Your task to perform on an android device: turn on translation in the chrome app Image 0: 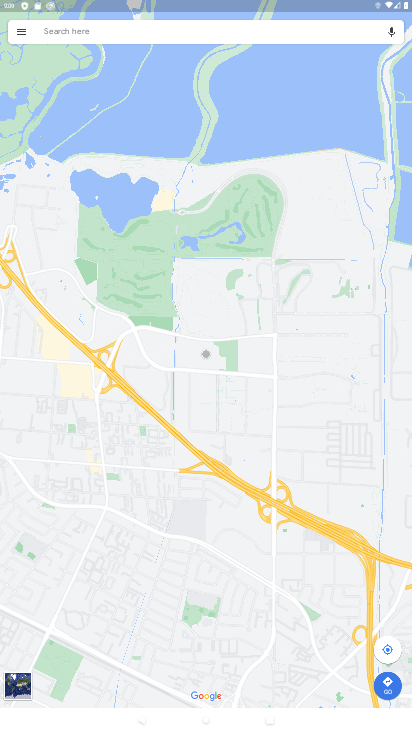
Step 0: press home button
Your task to perform on an android device: turn on translation in the chrome app Image 1: 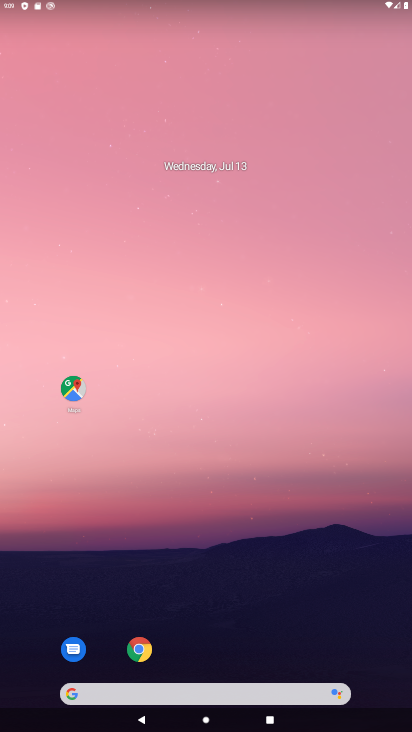
Step 1: drag from (194, 663) to (237, 56)
Your task to perform on an android device: turn on translation in the chrome app Image 2: 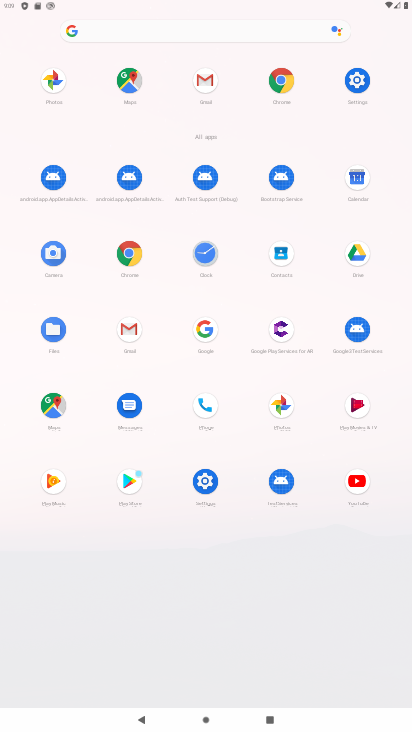
Step 2: click (128, 256)
Your task to perform on an android device: turn on translation in the chrome app Image 3: 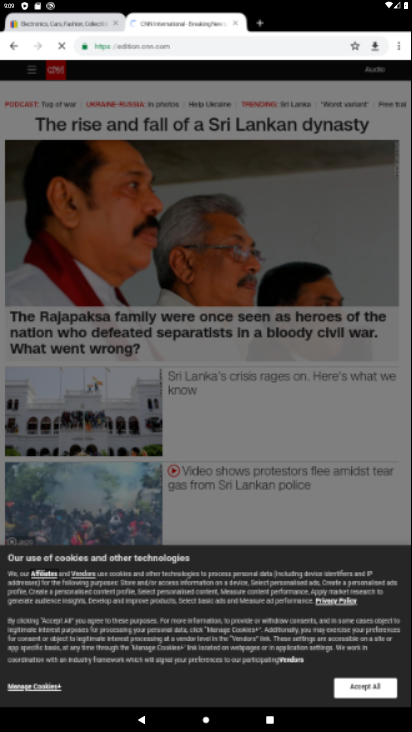
Step 3: drag from (397, 44) to (325, 278)
Your task to perform on an android device: turn on translation in the chrome app Image 4: 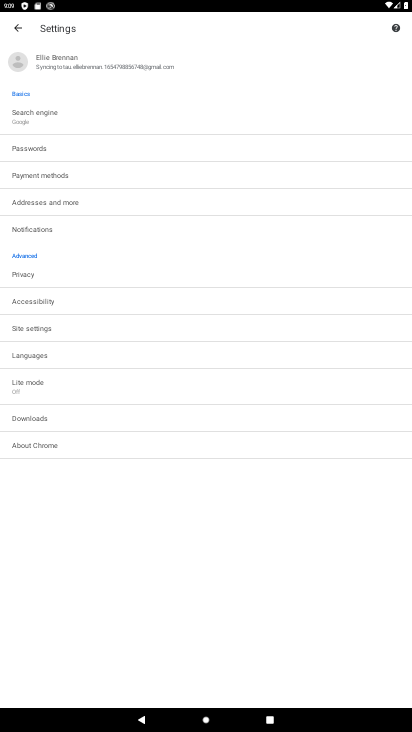
Step 4: click (57, 348)
Your task to perform on an android device: turn on translation in the chrome app Image 5: 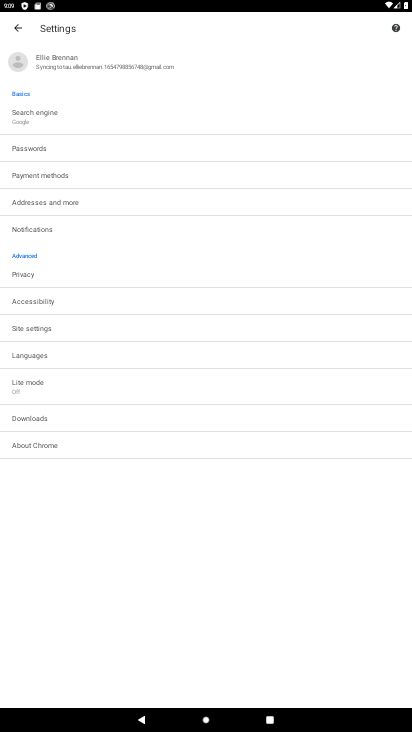
Step 5: click (106, 363)
Your task to perform on an android device: turn on translation in the chrome app Image 6: 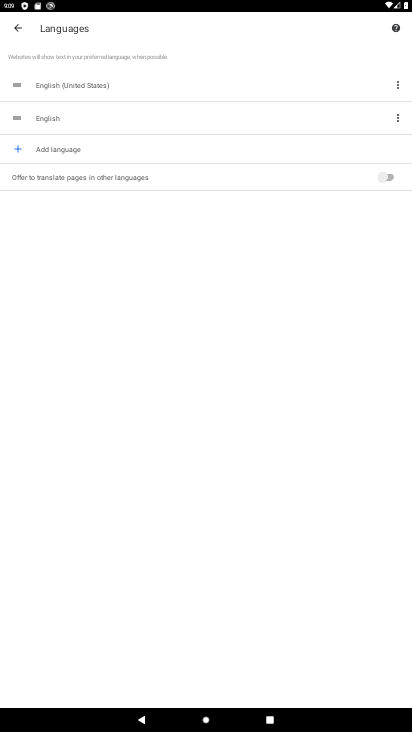
Step 6: click (399, 178)
Your task to perform on an android device: turn on translation in the chrome app Image 7: 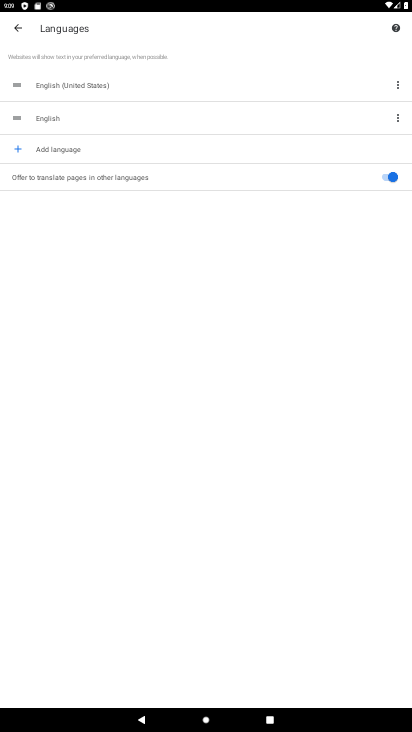
Step 7: task complete